Your task to perform on an android device: Show me productivity apps on the Play Store Image 0: 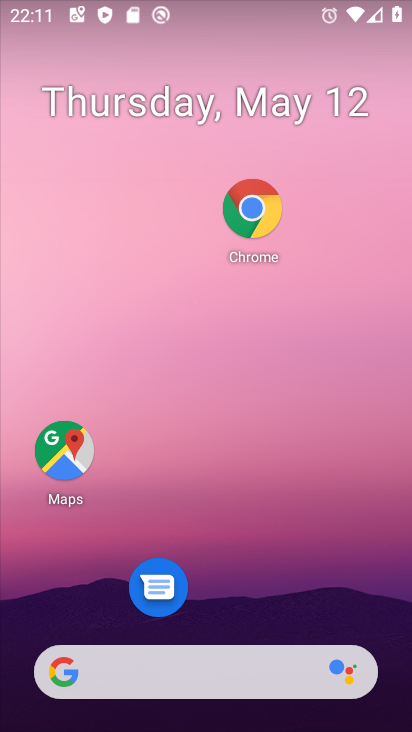
Step 0: drag from (255, 607) to (279, 263)
Your task to perform on an android device: Show me productivity apps on the Play Store Image 1: 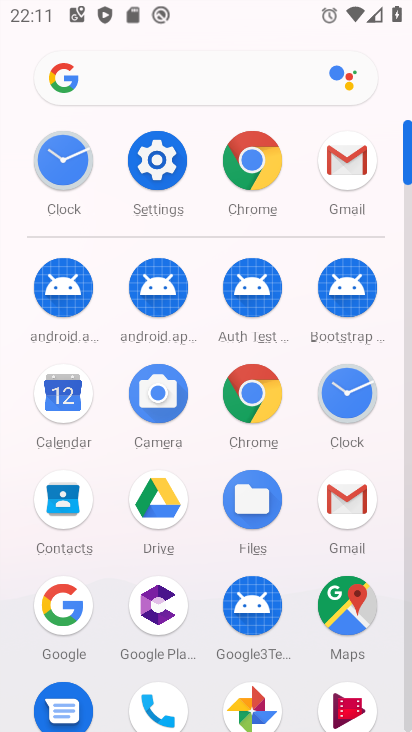
Step 1: drag from (203, 615) to (221, 284)
Your task to perform on an android device: Show me productivity apps on the Play Store Image 2: 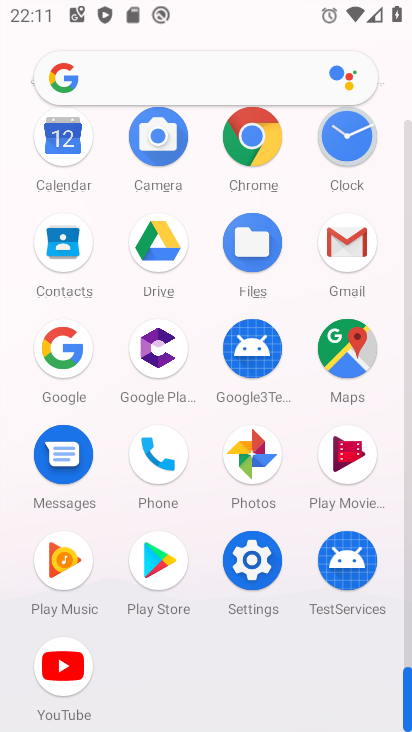
Step 2: click (143, 567)
Your task to perform on an android device: Show me productivity apps on the Play Store Image 3: 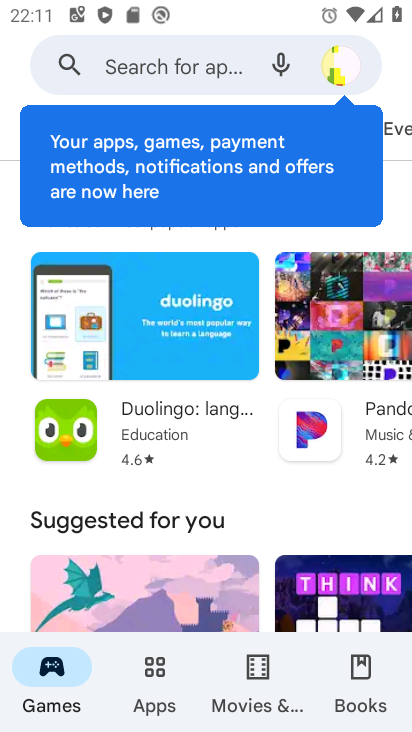
Step 3: click (151, 672)
Your task to perform on an android device: Show me productivity apps on the Play Store Image 4: 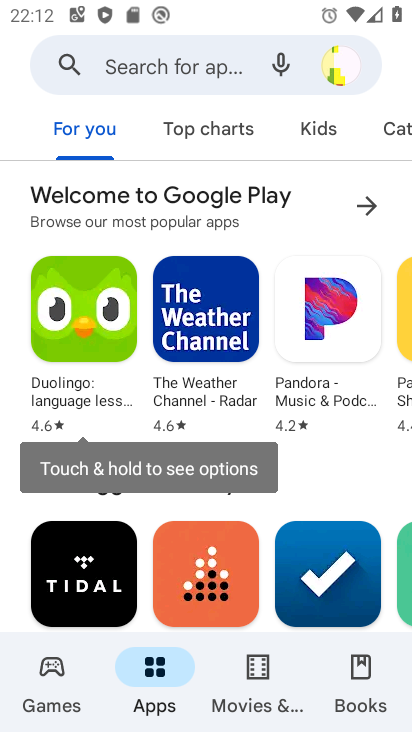
Step 4: task complete